Your task to perform on an android device: Go to display settings Image 0: 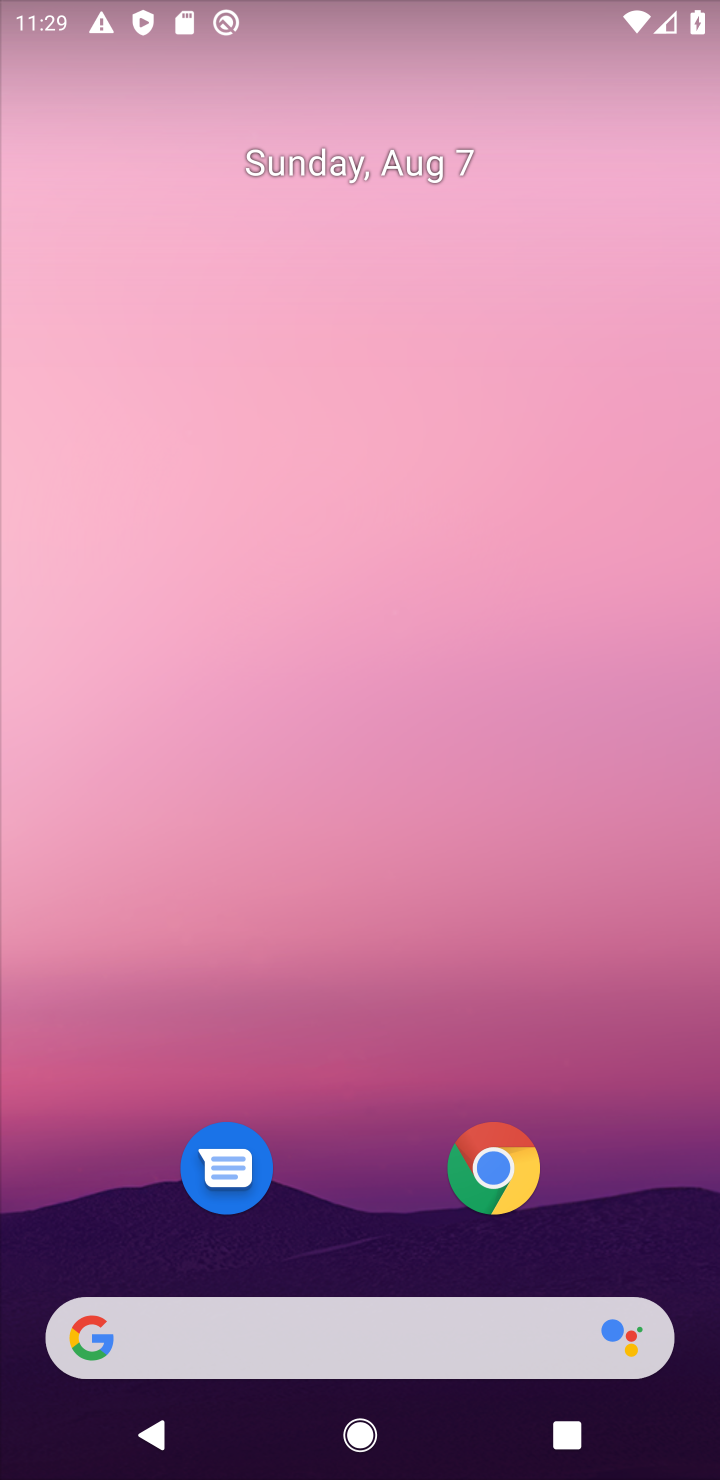
Step 0: drag from (89, 1406) to (174, 498)
Your task to perform on an android device: Go to display settings Image 1: 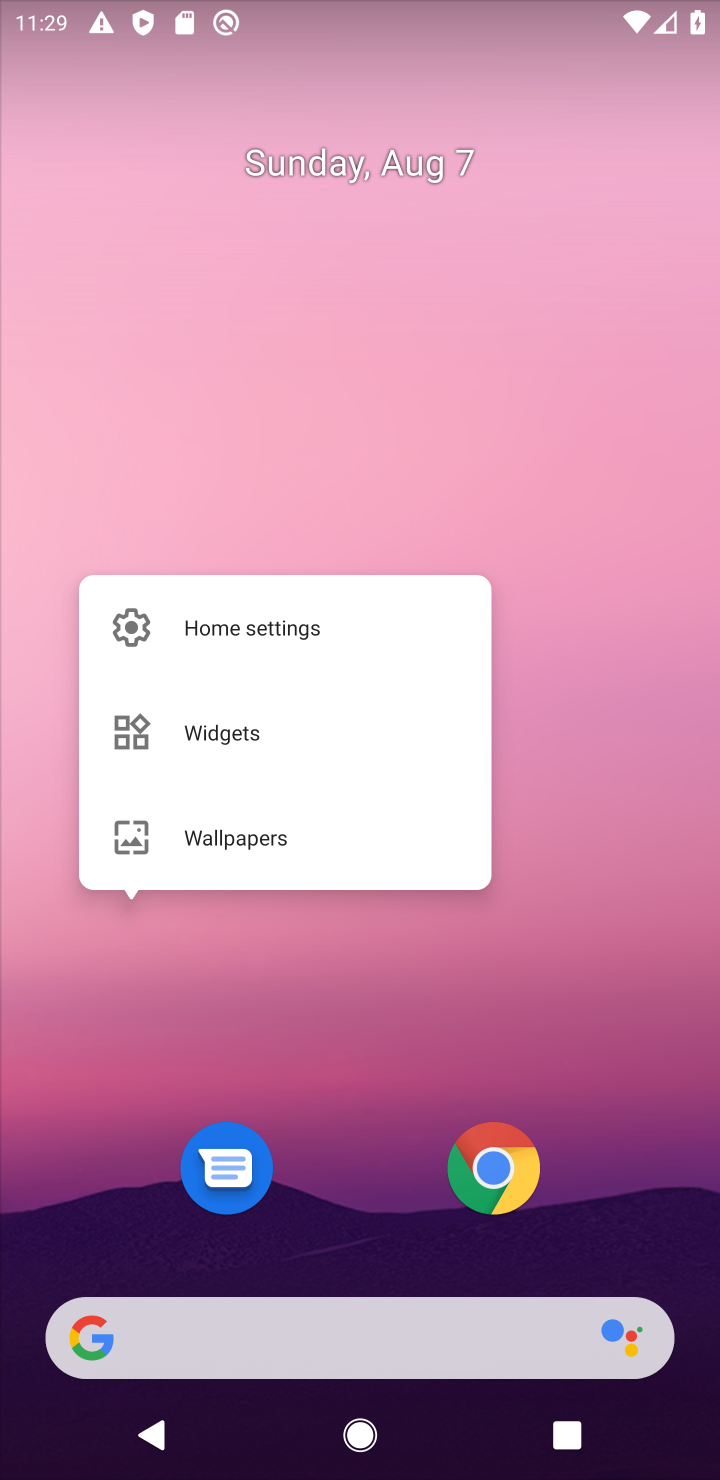
Step 1: click (22, 1388)
Your task to perform on an android device: Go to display settings Image 2: 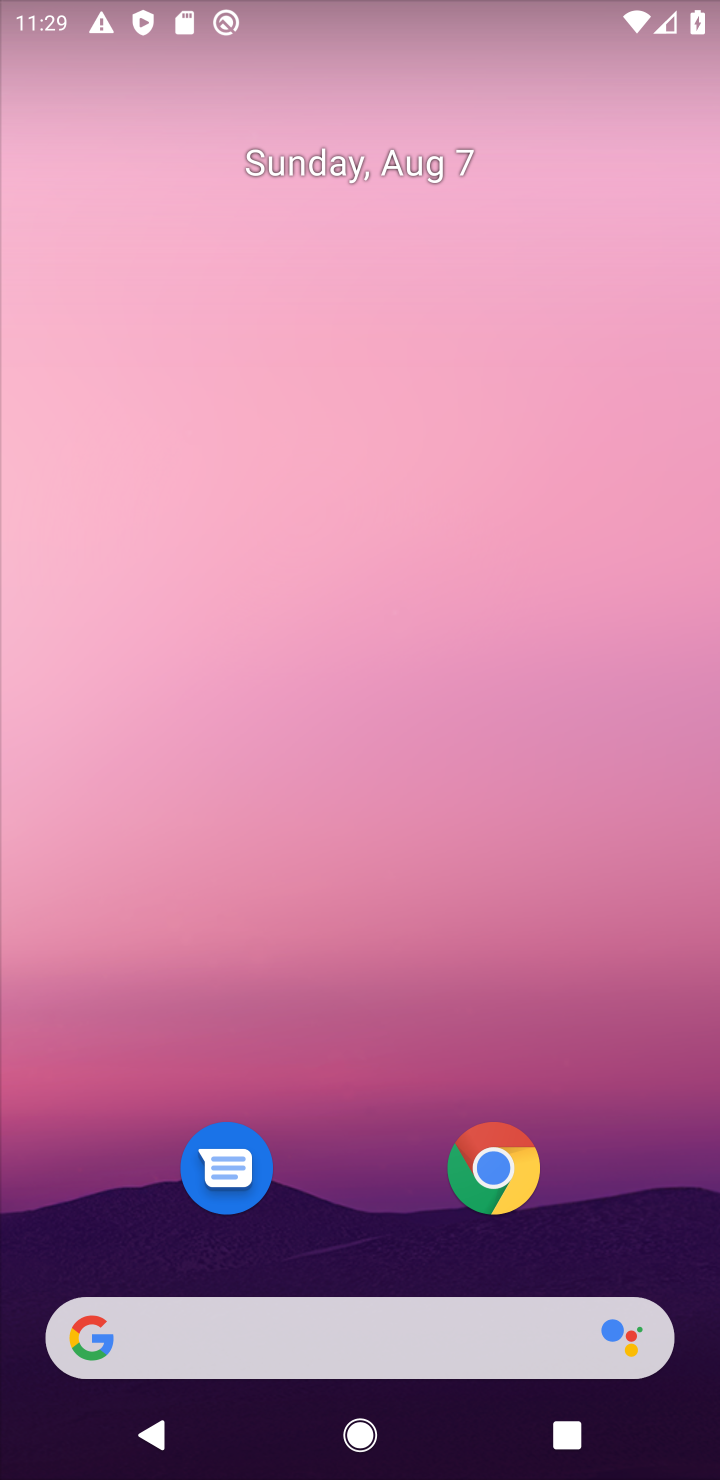
Step 2: drag from (22, 1388) to (257, 552)
Your task to perform on an android device: Go to display settings Image 3: 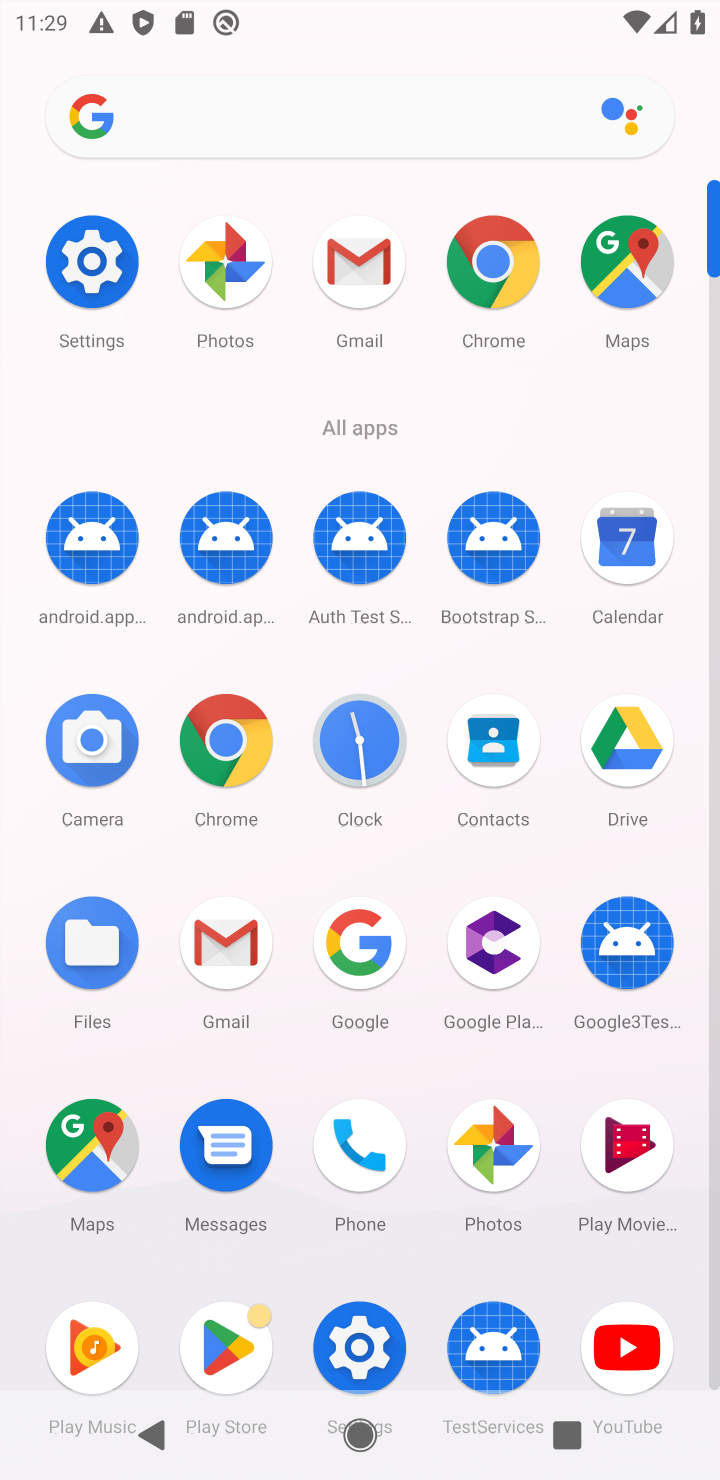
Step 3: click (377, 1390)
Your task to perform on an android device: Go to display settings Image 4: 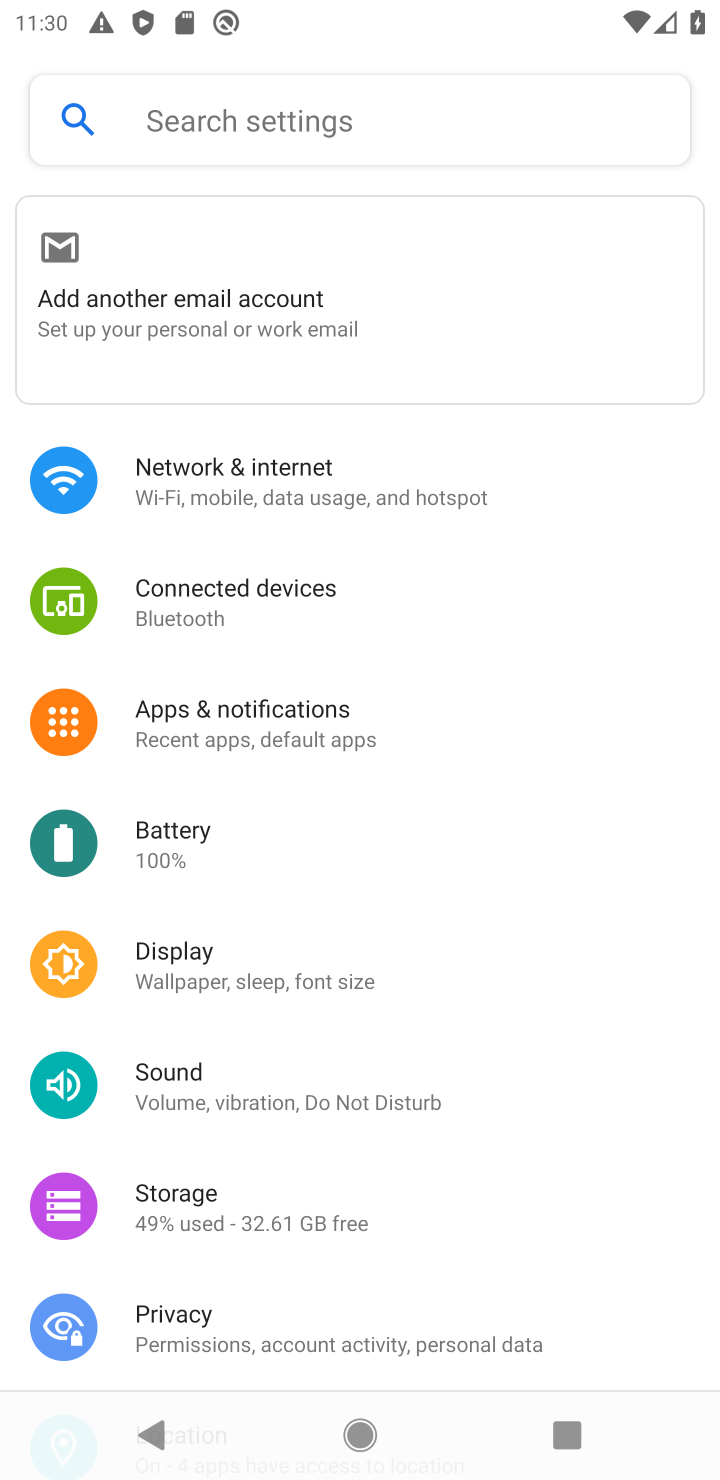
Step 4: click (214, 943)
Your task to perform on an android device: Go to display settings Image 5: 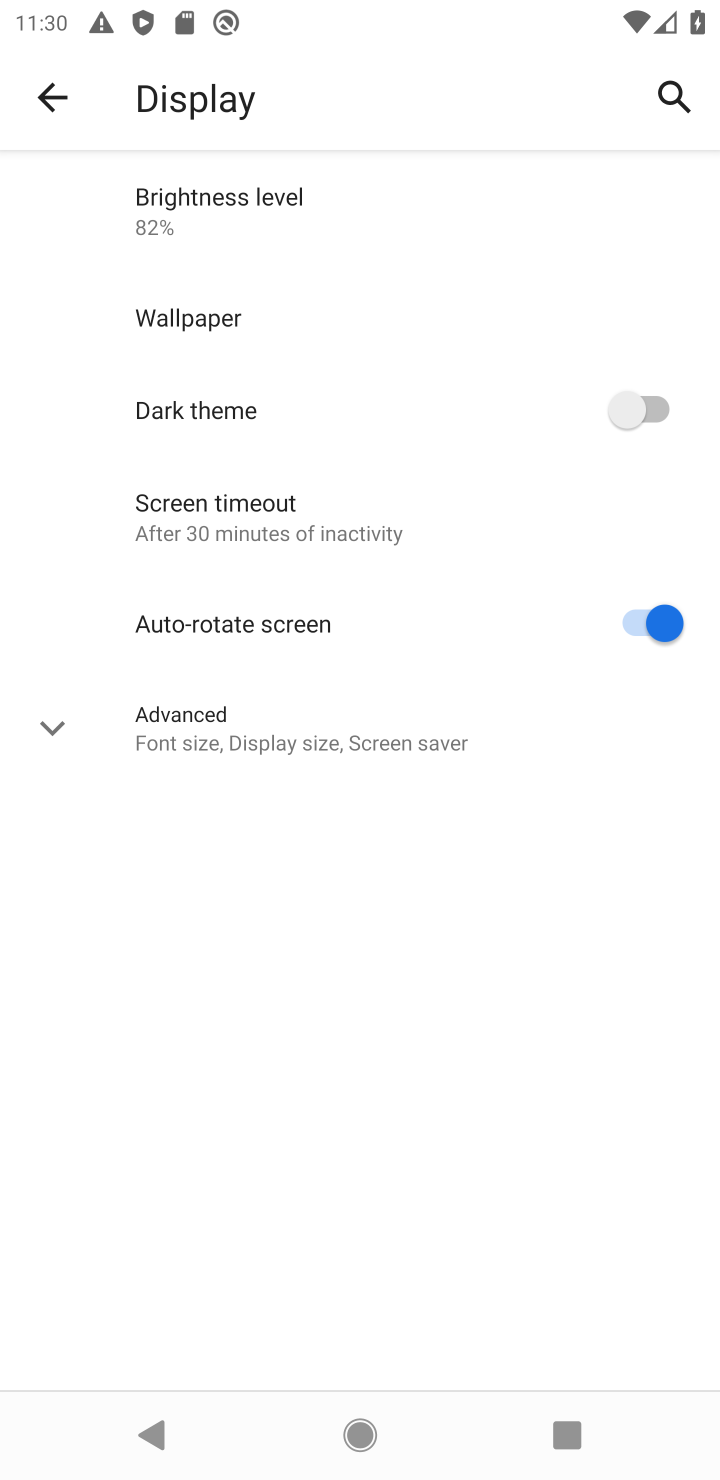
Step 5: task complete